Your task to perform on an android device: add a label to a message in the gmail app Image 0: 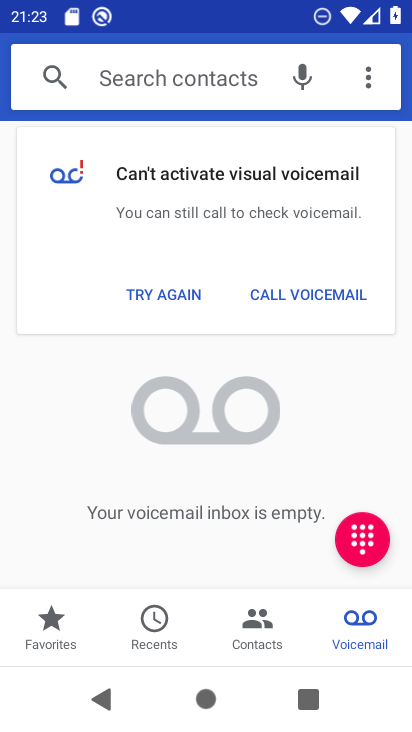
Step 0: press home button
Your task to perform on an android device: add a label to a message in the gmail app Image 1: 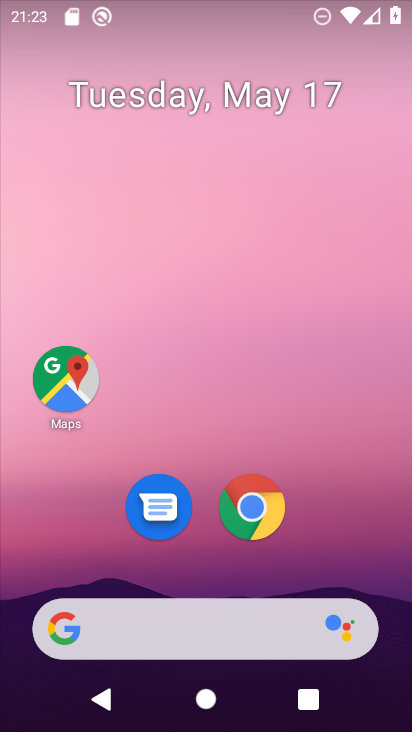
Step 1: drag from (365, 531) to (310, 0)
Your task to perform on an android device: add a label to a message in the gmail app Image 2: 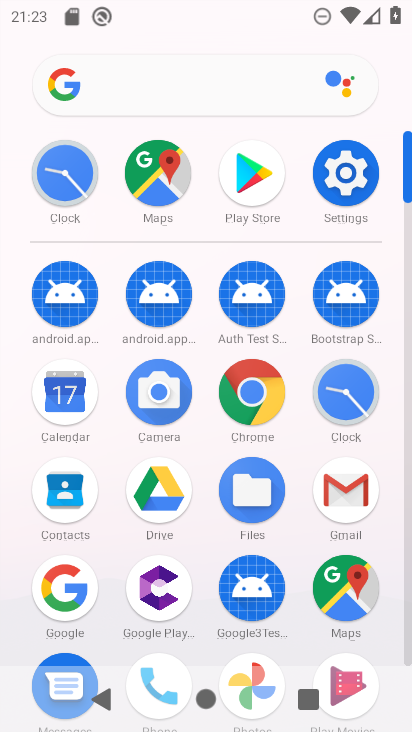
Step 2: click (349, 492)
Your task to perform on an android device: add a label to a message in the gmail app Image 3: 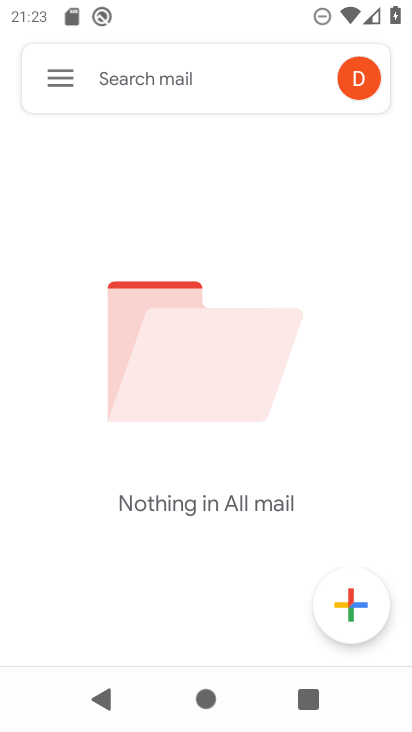
Step 3: click (62, 82)
Your task to perform on an android device: add a label to a message in the gmail app Image 4: 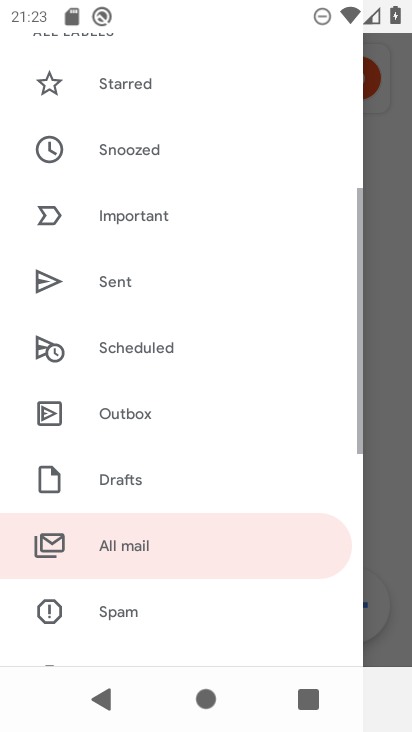
Step 4: drag from (212, 281) to (194, 185)
Your task to perform on an android device: add a label to a message in the gmail app Image 5: 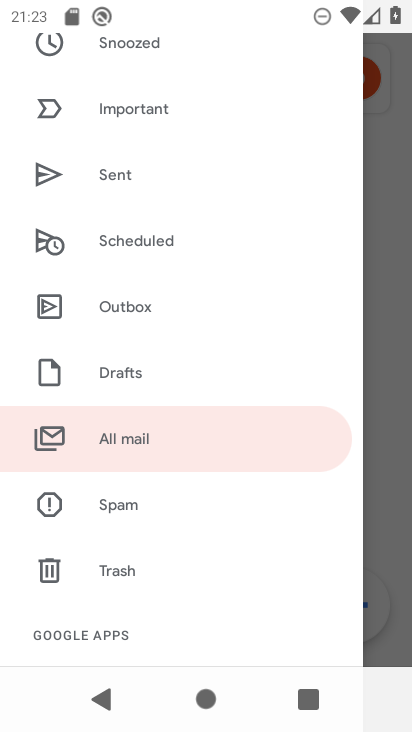
Step 5: click (145, 439)
Your task to perform on an android device: add a label to a message in the gmail app Image 6: 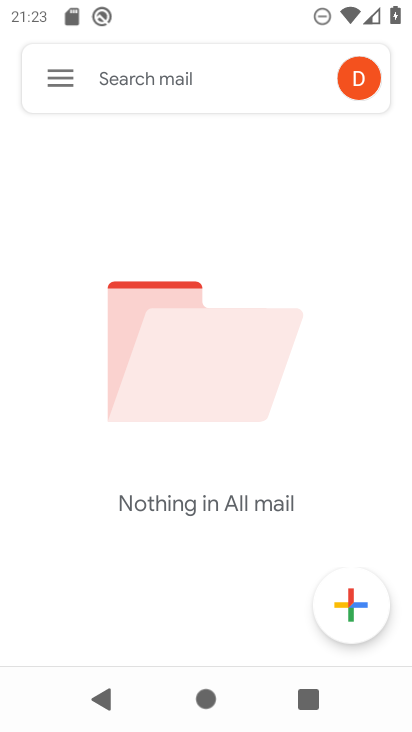
Step 6: task complete